Your task to perform on an android device: refresh tabs in the chrome app Image 0: 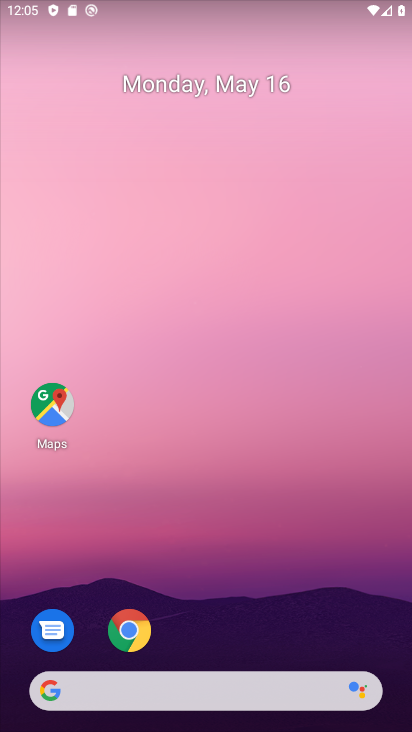
Step 0: click (148, 532)
Your task to perform on an android device: refresh tabs in the chrome app Image 1: 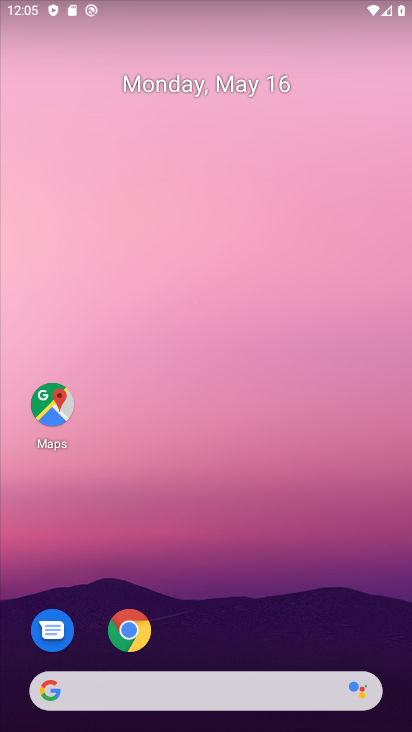
Step 1: click (148, 532)
Your task to perform on an android device: refresh tabs in the chrome app Image 2: 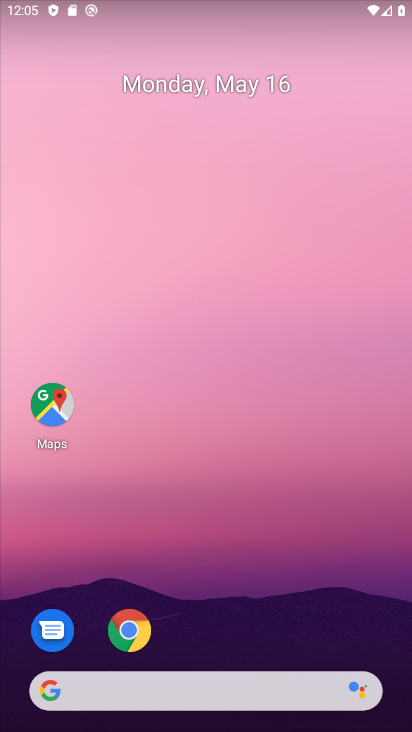
Step 2: drag from (250, 669) to (193, 657)
Your task to perform on an android device: refresh tabs in the chrome app Image 3: 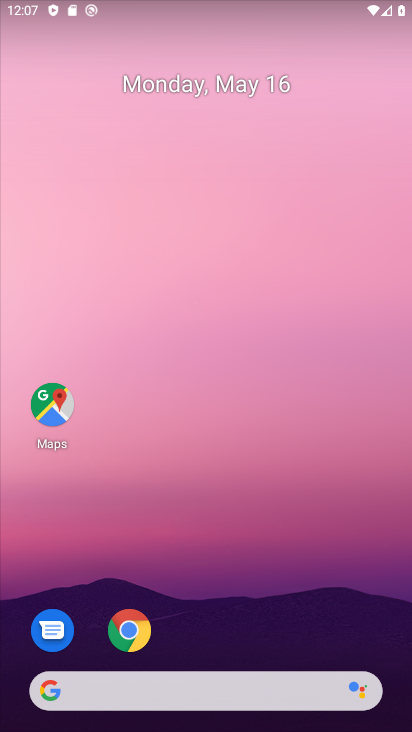
Step 3: drag from (224, 672) to (213, 440)
Your task to perform on an android device: refresh tabs in the chrome app Image 4: 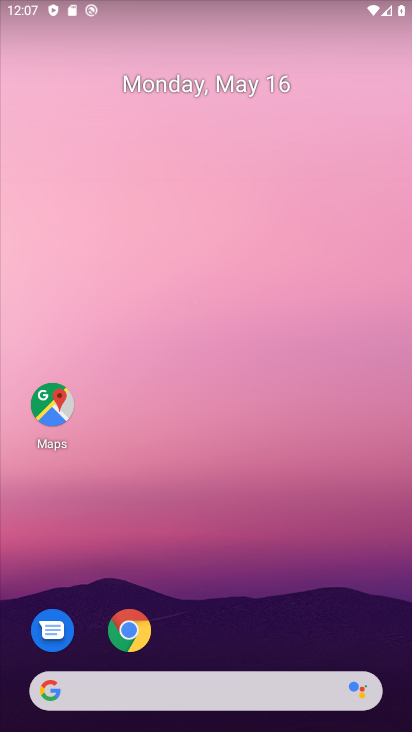
Step 4: click (132, 634)
Your task to perform on an android device: refresh tabs in the chrome app Image 5: 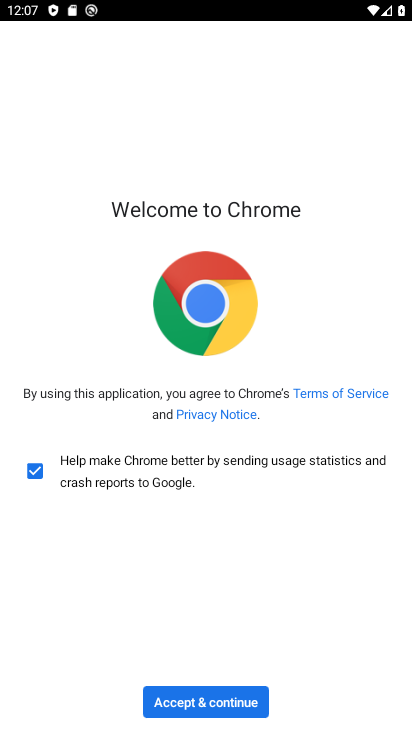
Step 5: click (203, 698)
Your task to perform on an android device: refresh tabs in the chrome app Image 6: 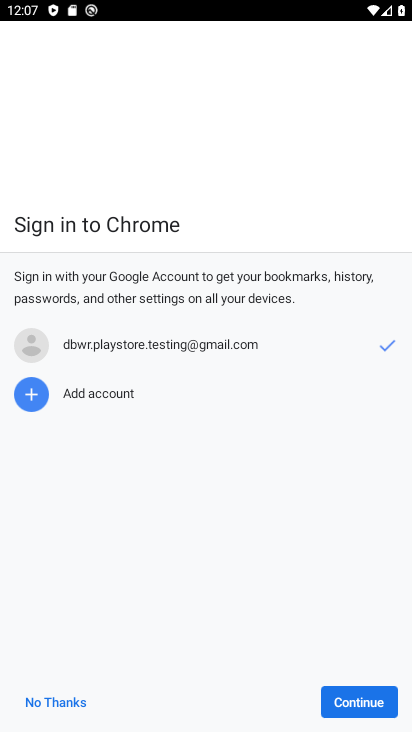
Step 6: click (356, 699)
Your task to perform on an android device: refresh tabs in the chrome app Image 7: 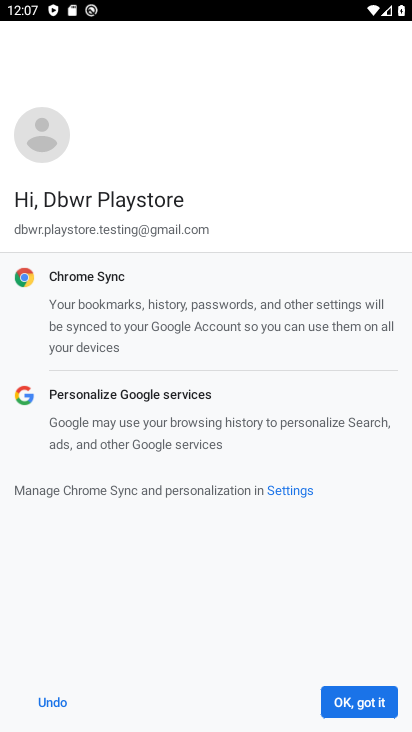
Step 7: click (356, 699)
Your task to perform on an android device: refresh tabs in the chrome app Image 8: 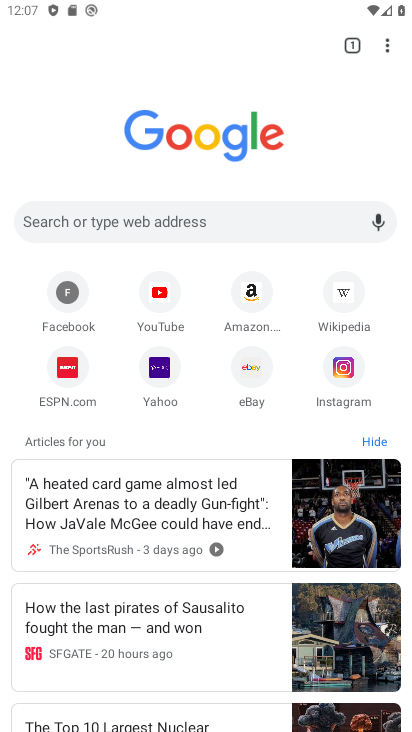
Step 8: click (387, 45)
Your task to perform on an android device: refresh tabs in the chrome app Image 9: 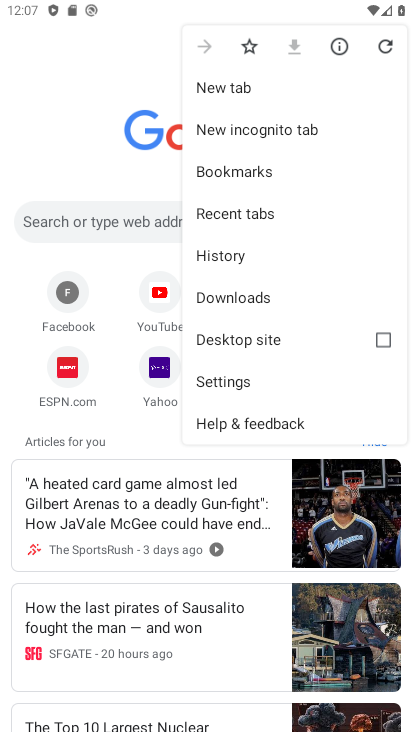
Step 9: click (385, 45)
Your task to perform on an android device: refresh tabs in the chrome app Image 10: 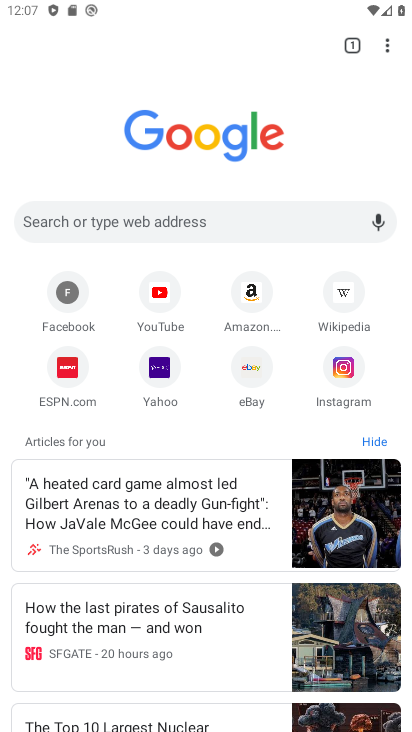
Step 10: task complete